Your task to perform on an android device: Open wifi settings Image 0: 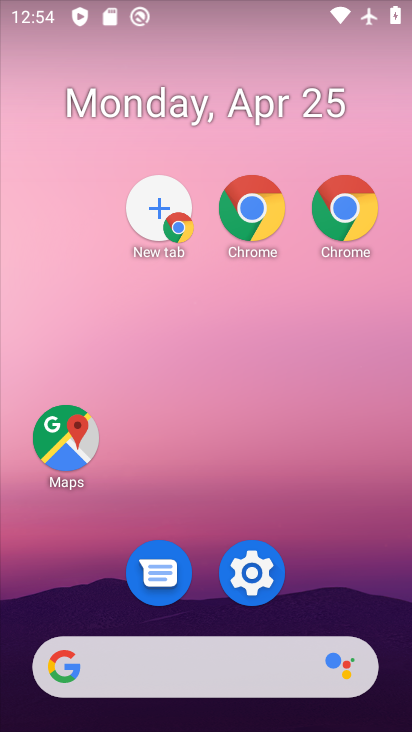
Step 0: drag from (291, 700) to (219, 231)
Your task to perform on an android device: Open wifi settings Image 1: 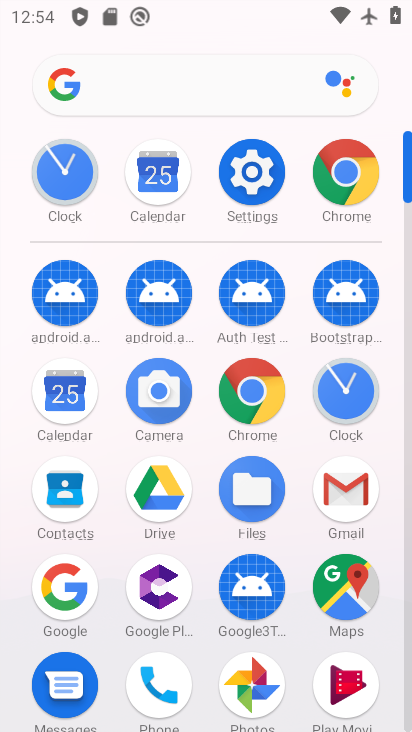
Step 1: click (254, 176)
Your task to perform on an android device: Open wifi settings Image 2: 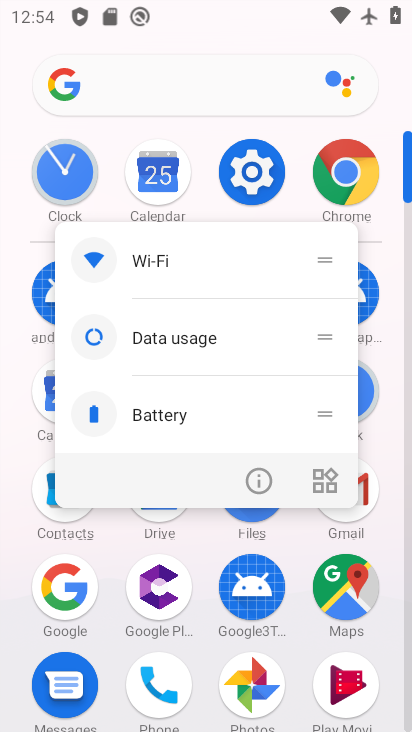
Step 2: click (254, 176)
Your task to perform on an android device: Open wifi settings Image 3: 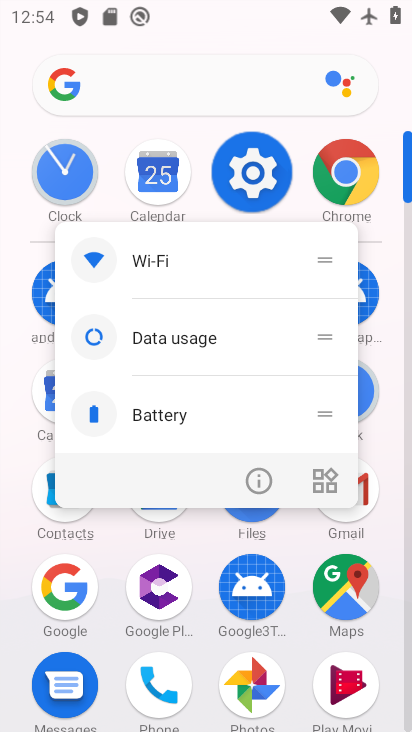
Step 3: click (254, 176)
Your task to perform on an android device: Open wifi settings Image 4: 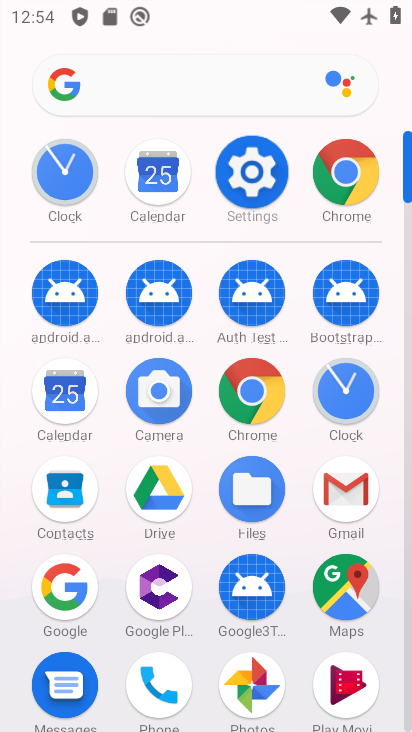
Step 4: click (254, 176)
Your task to perform on an android device: Open wifi settings Image 5: 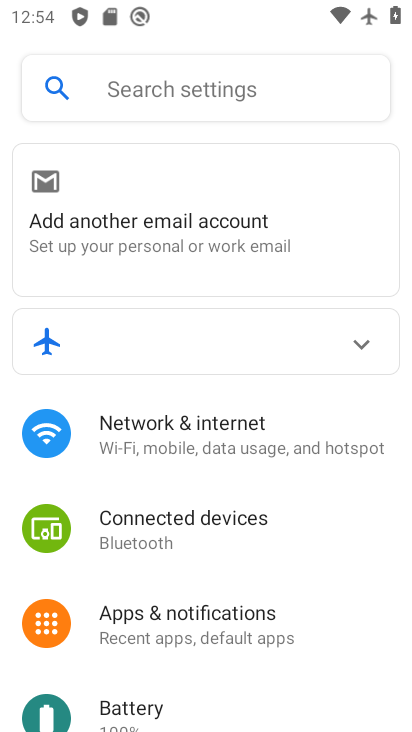
Step 5: click (237, 449)
Your task to perform on an android device: Open wifi settings Image 6: 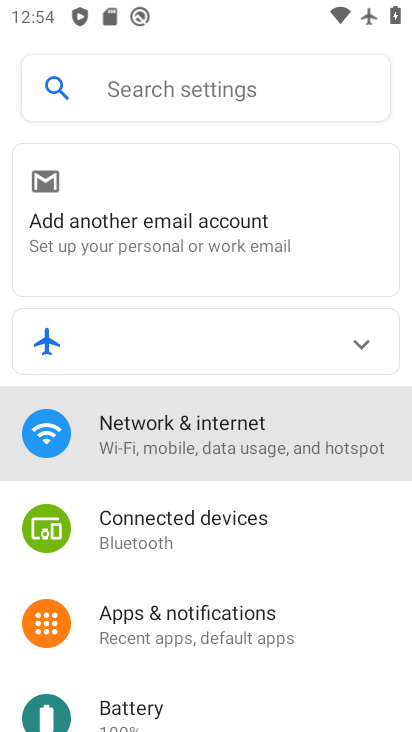
Step 6: click (237, 449)
Your task to perform on an android device: Open wifi settings Image 7: 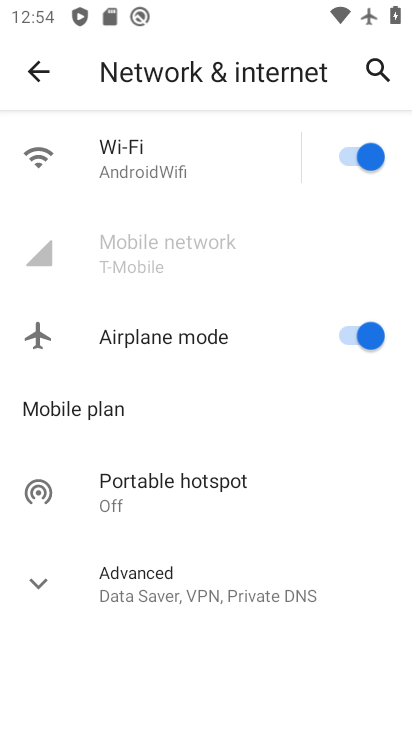
Step 7: click (237, 449)
Your task to perform on an android device: Open wifi settings Image 8: 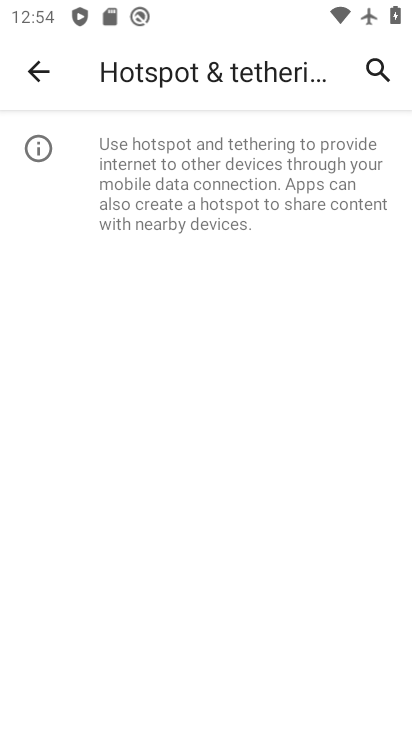
Step 8: click (38, 66)
Your task to perform on an android device: Open wifi settings Image 9: 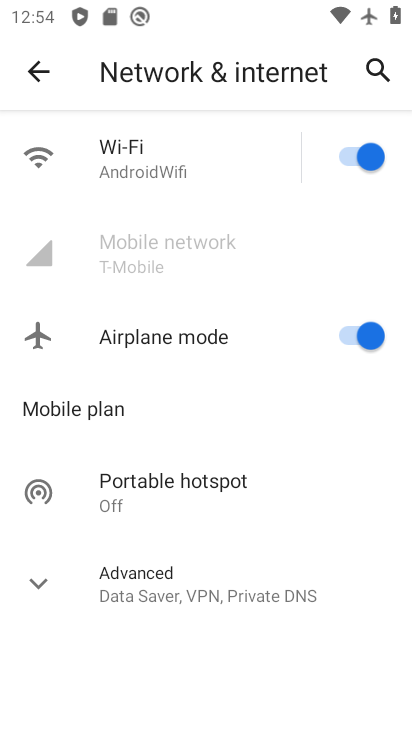
Step 9: task complete